Your task to perform on an android device: set the stopwatch Image 0: 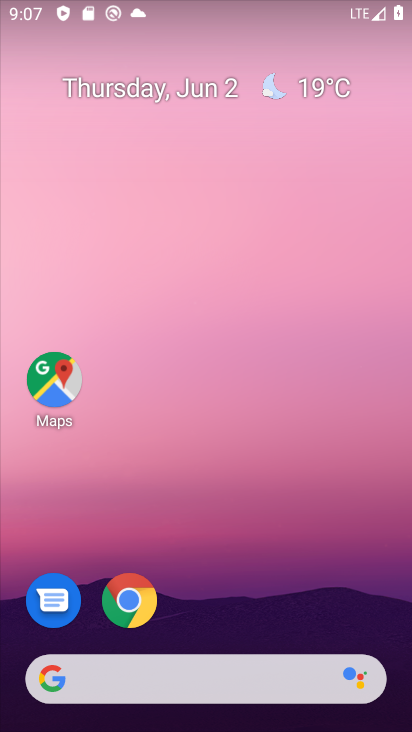
Step 0: drag from (202, 620) to (190, 179)
Your task to perform on an android device: set the stopwatch Image 1: 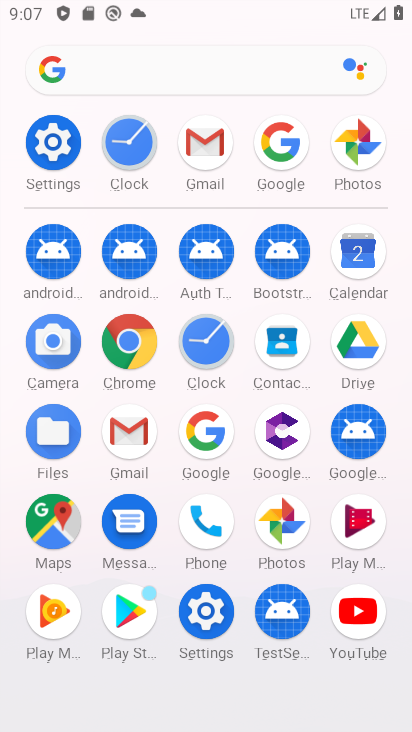
Step 1: click (141, 151)
Your task to perform on an android device: set the stopwatch Image 2: 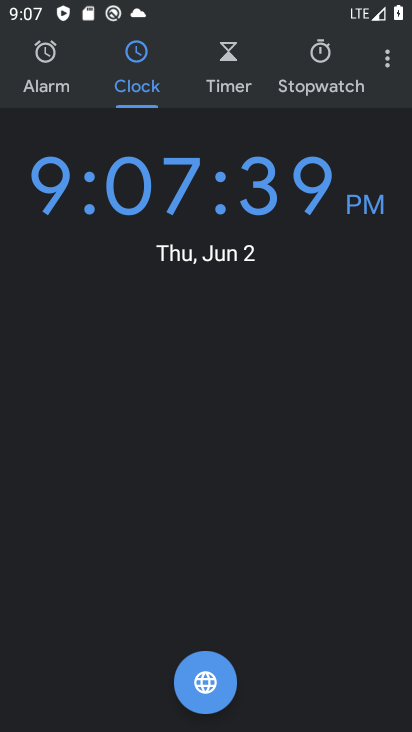
Step 2: click (329, 66)
Your task to perform on an android device: set the stopwatch Image 3: 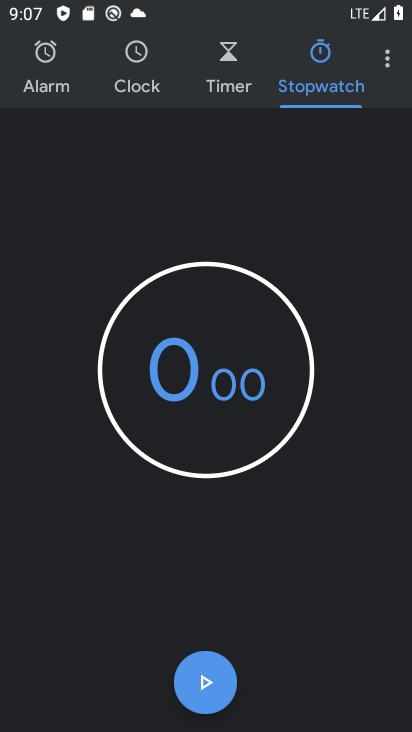
Step 3: click (199, 691)
Your task to perform on an android device: set the stopwatch Image 4: 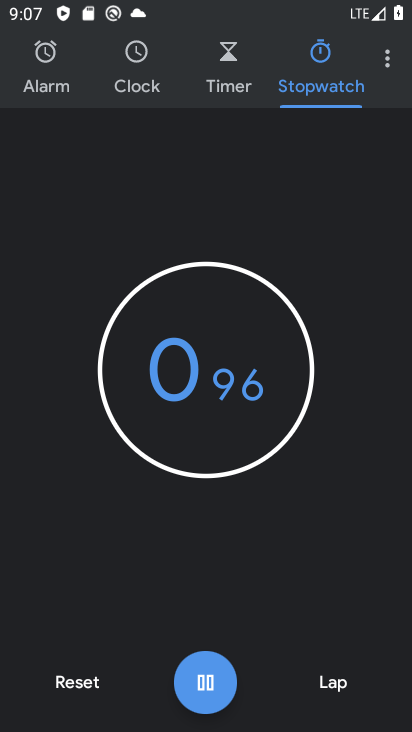
Step 4: task complete